Your task to perform on an android device: See recent photos Image 0: 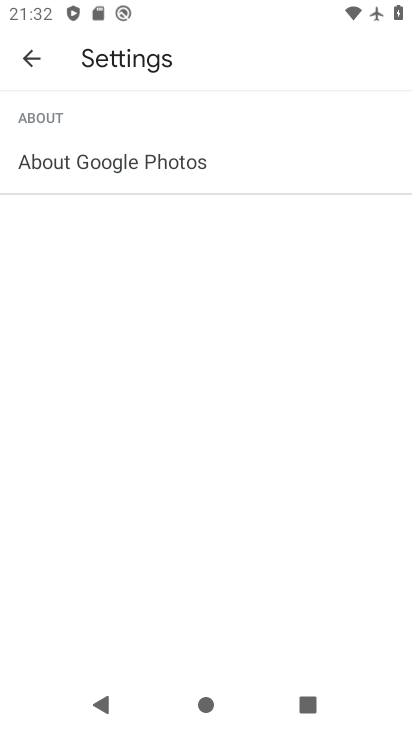
Step 0: press home button
Your task to perform on an android device: See recent photos Image 1: 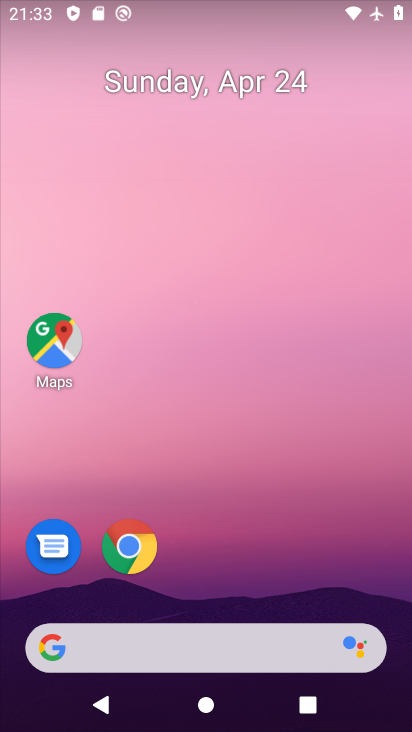
Step 1: drag from (298, 320) to (289, 187)
Your task to perform on an android device: See recent photos Image 2: 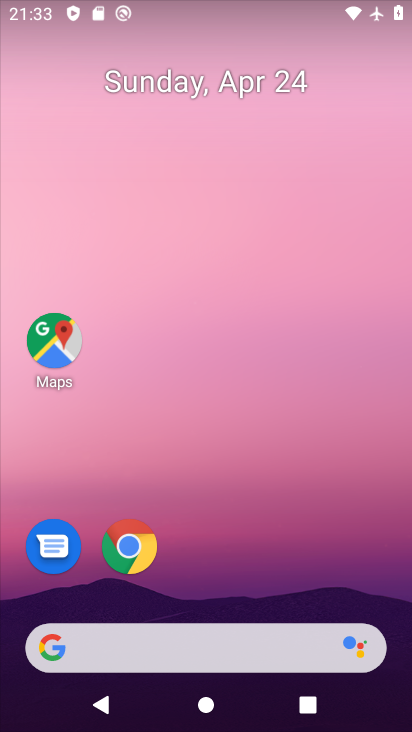
Step 2: drag from (288, 600) to (306, 225)
Your task to perform on an android device: See recent photos Image 3: 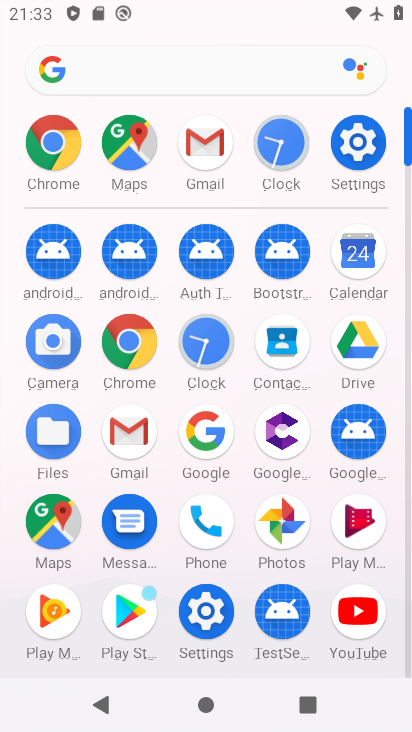
Step 3: click (272, 515)
Your task to perform on an android device: See recent photos Image 4: 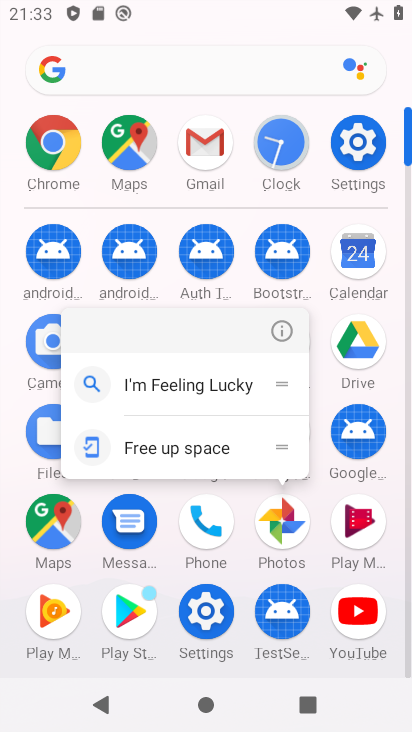
Step 4: click (278, 517)
Your task to perform on an android device: See recent photos Image 5: 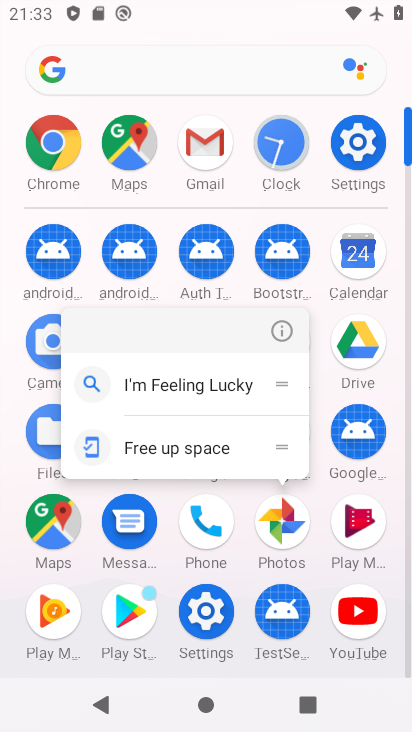
Step 5: click (278, 517)
Your task to perform on an android device: See recent photos Image 6: 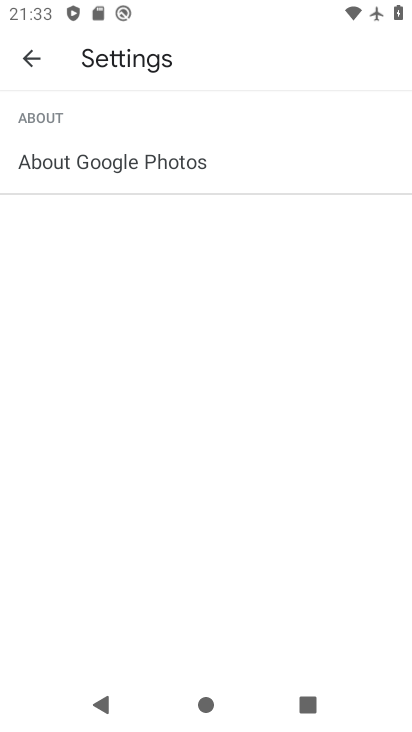
Step 6: click (19, 55)
Your task to perform on an android device: See recent photos Image 7: 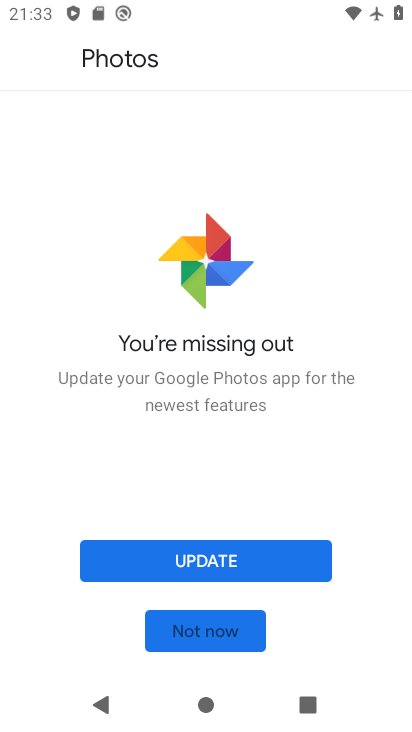
Step 7: click (232, 625)
Your task to perform on an android device: See recent photos Image 8: 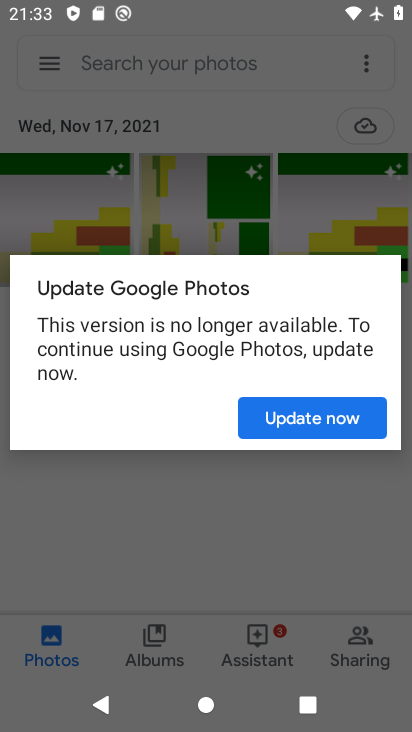
Step 8: click (347, 410)
Your task to perform on an android device: See recent photos Image 9: 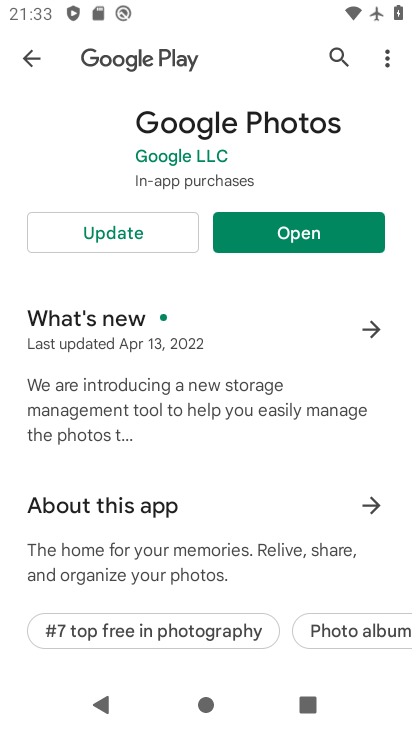
Step 9: press back button
Your task to perform on an android device: See recent photos Image 10: 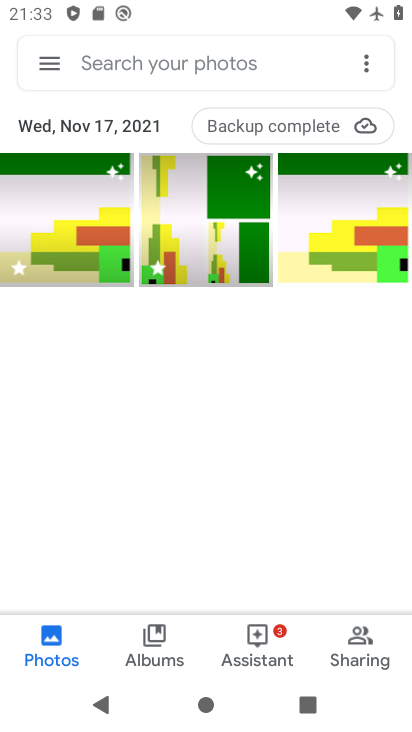
Step 10: click (77, 242)
Your task to perform on an android device: See recent photos Image 11: 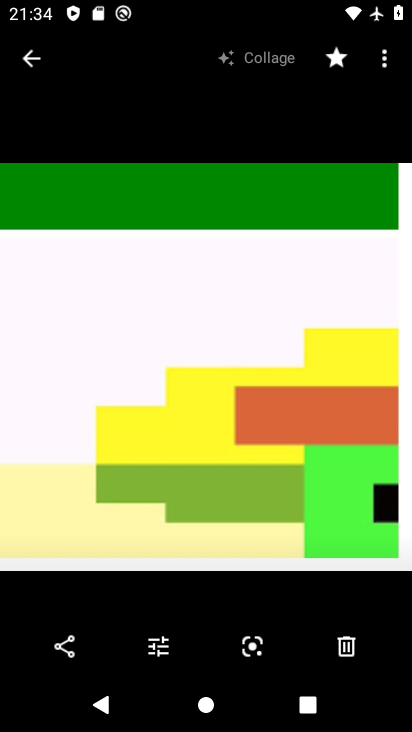
Step 11: task complete